Your task to perform on an android device: Go to Google Image 0: 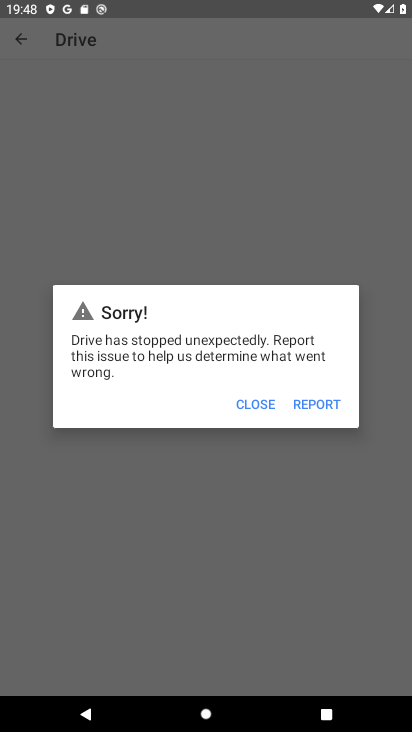
Step 0: press home button
Your task to perform on an android device: Go to Google Image 1: 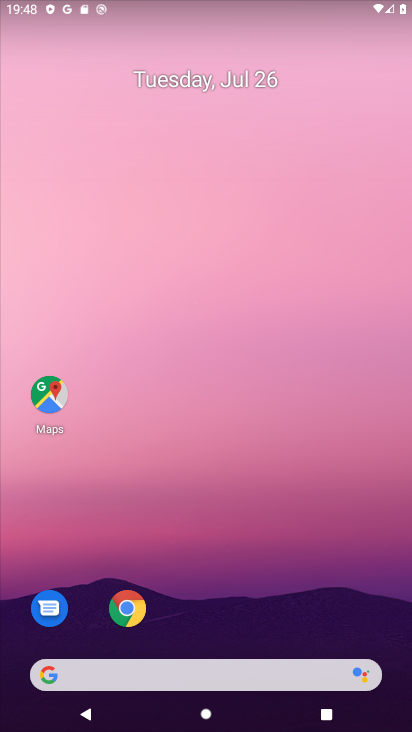
Step 1: drag from (312, 559) to (15, 376)
Your task to perform on an android device: Go to Google Image 2: 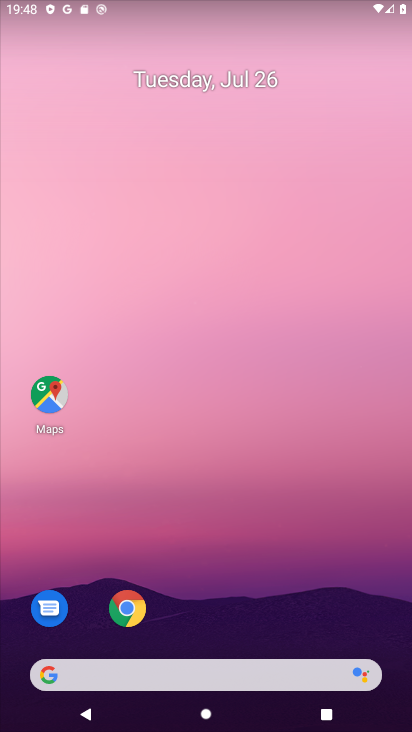
Step 2: drag from (265, 647) to (124, 175)
Your task to perform on an android device: Go to Google Image 3: 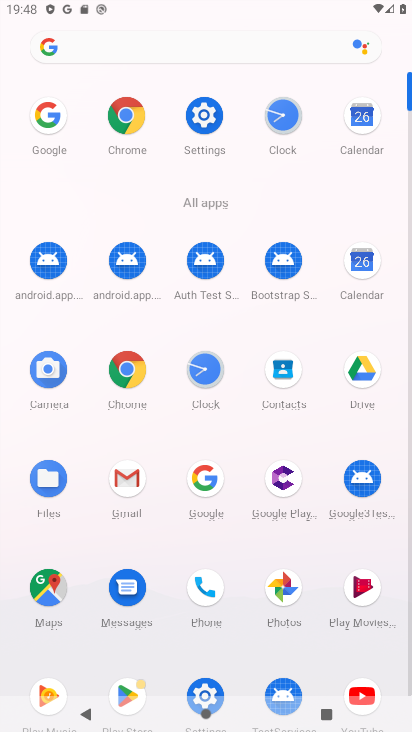
Step 3: click (217, 483)
Your task to perform on an android device: Go to Google Image 4: 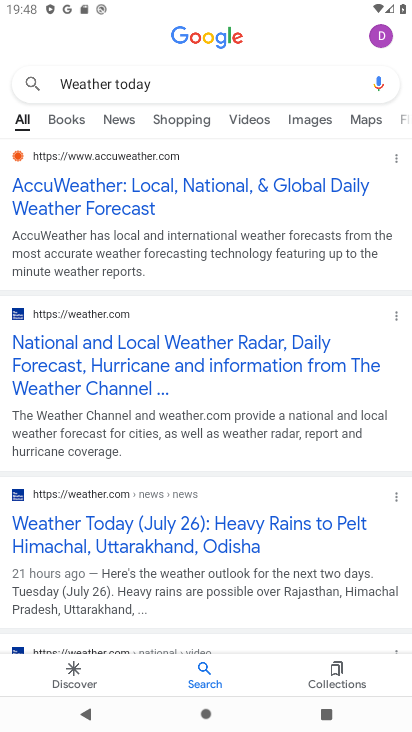
Step 4: task complete